Your task to perform on an android device: Open Google Maps and go to "Timeline" Image 0: 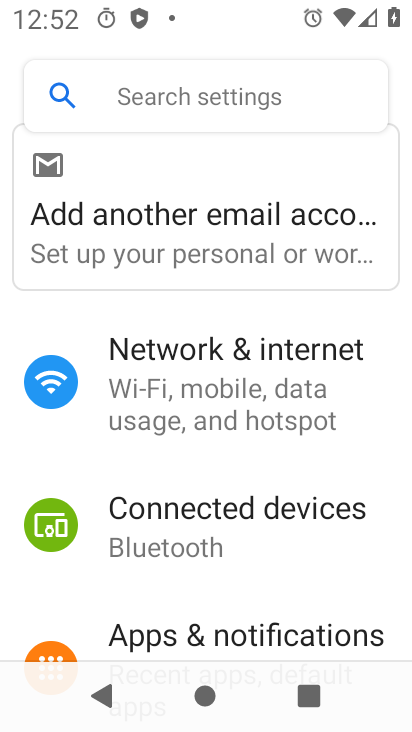
Step 0: press home button
Your task to perform on an android device: Open Google Maps and go to "Timeline" Image 1: 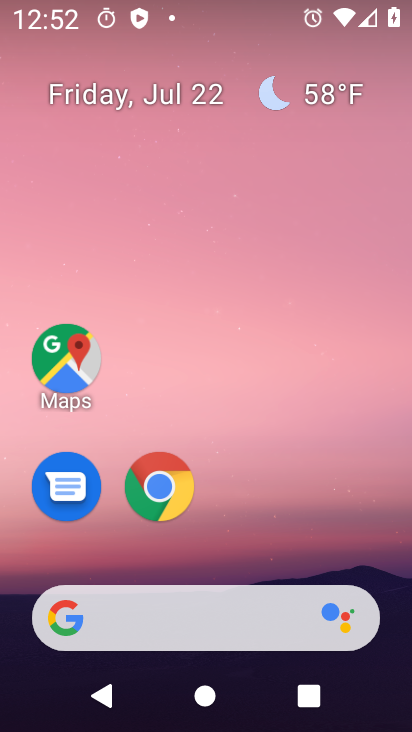
Step 1: drag from (370, 511) to (325, 149)
Your task to perform on an android device: Open Google Maps and go to "Timeline" Image 2: 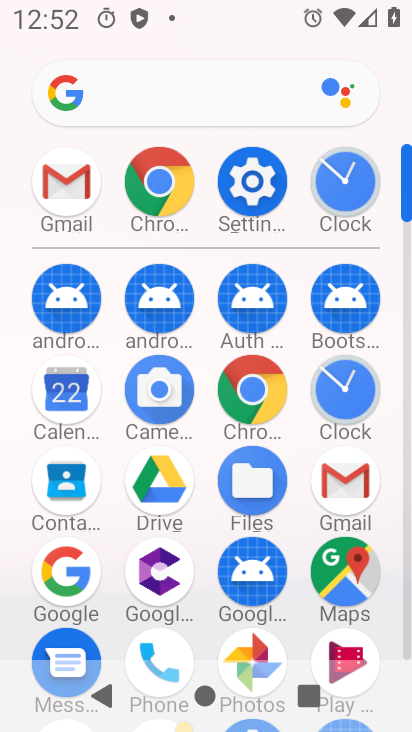
Step 2: click (364, 565)
Your task to perform on an android device: Open Google Maps and go to "Timeline" Image 3: 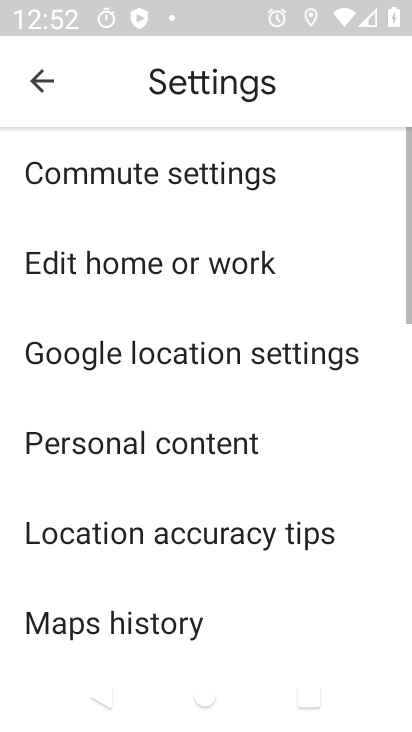
Step 3: press back button
Your task to perform on an android device: Open Google Maps and go to "Timeline" Image 4: 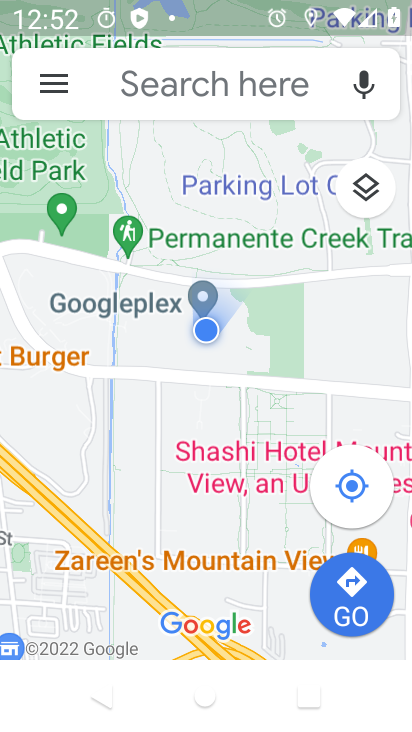
Step 4: click (50, 89)
Your task to perform on an android device: Open Google Maps and go to "Timeline" Image 5: 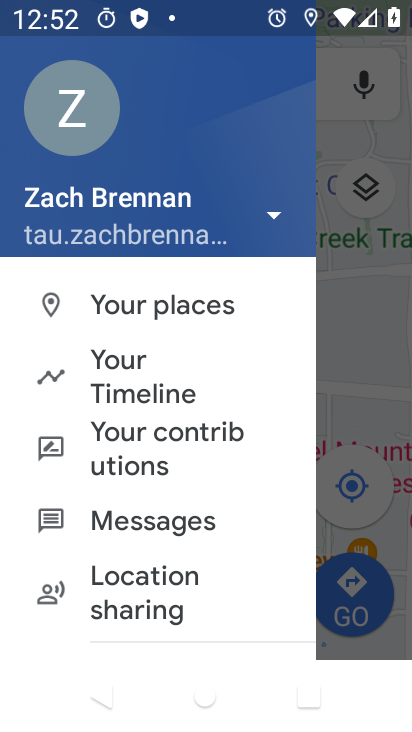
Step 5: click (163, 389)
Your task to perform on an android device: Open Google Maps and go to "Timeline" Image 6: 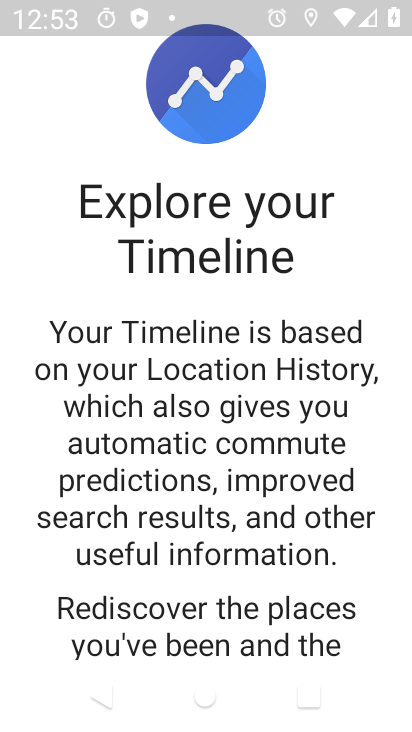
Step 6: task complete